Your task to perform on an android device: turn off location Image 0: 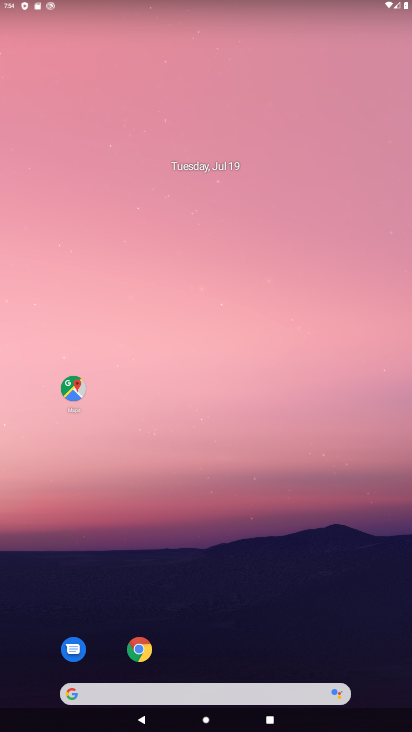
Step 0: press home button
Your task to perform on an android device: turn off location Image 1: 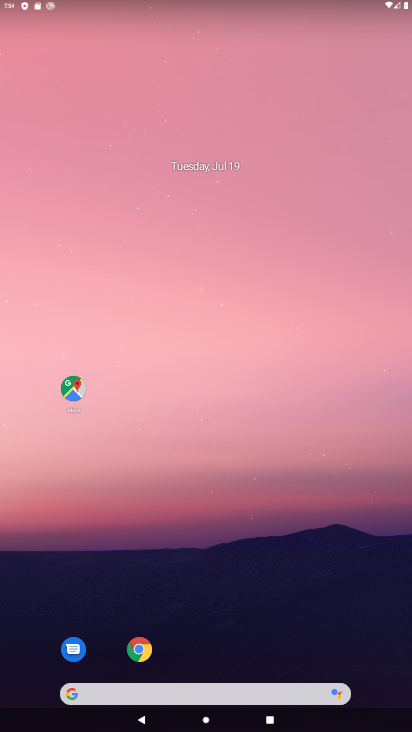
Step 1: drag from (229, 653) to (191, 0)
Your task to perform on an android device: turn off location Image 2: 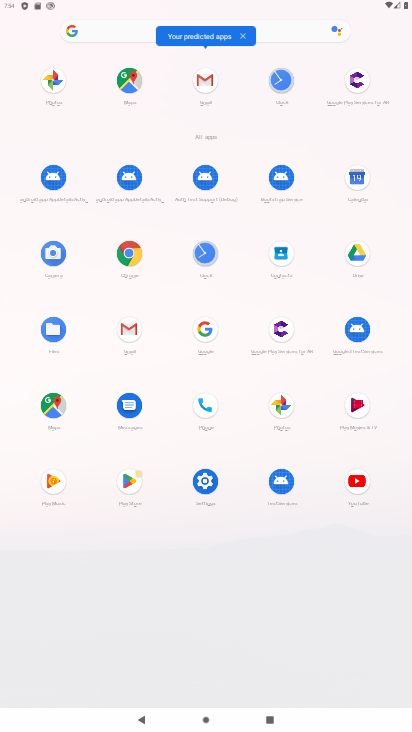
Step 2: click (203, 478)
Your task to perform on an android device: turn off location Image 3: 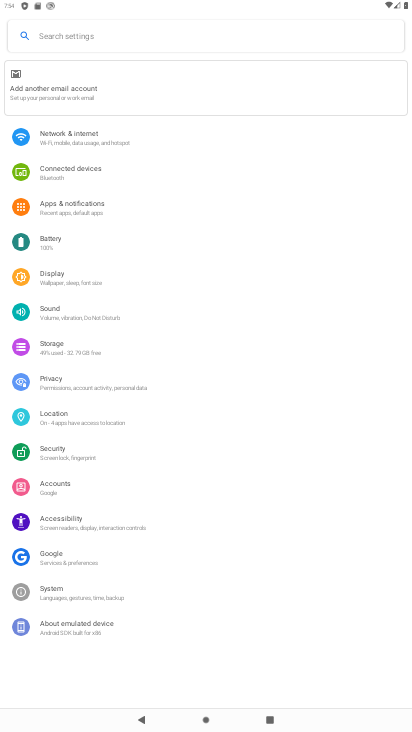
Step 3: click (76, 411)
Your task to perform on an android device: turn off location Image 4: 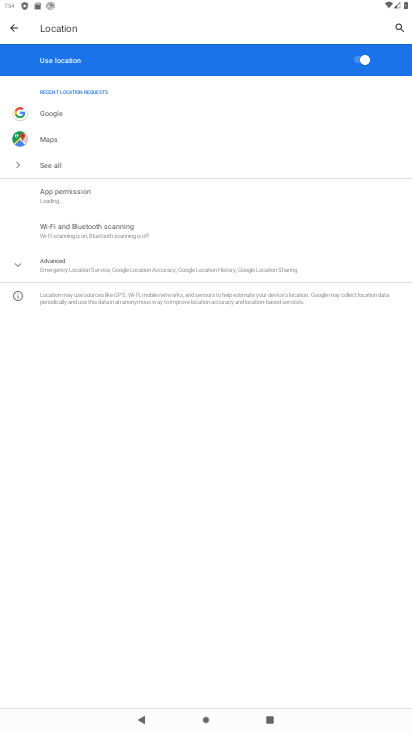
Step 4: click (356, 58)
Your task to perform on an android device: turn off location Image 5: 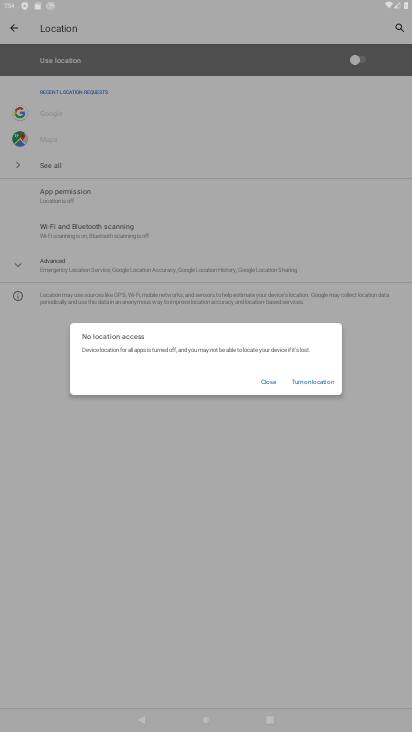
Step 5: task complete